Your task to perform on an android device: Toggle the flashlight Image 0: 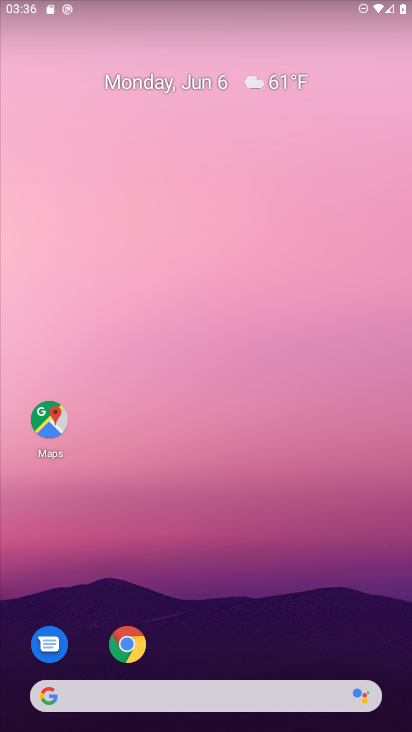
Step 0: drag from (218, 673) to (340, 51)
Your task to perform on an android device: Toggle the flashlight Image 1: 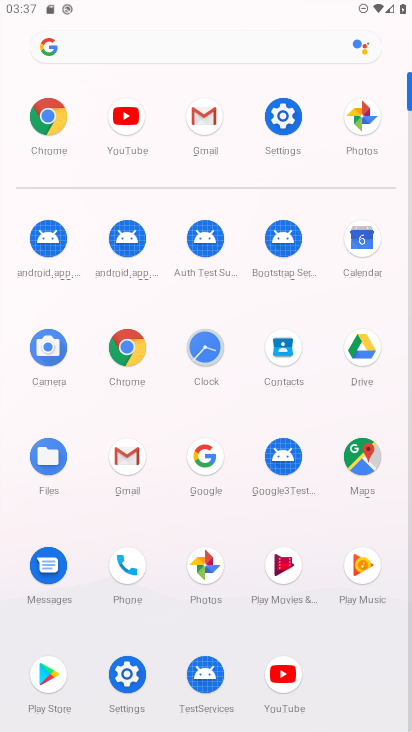
Step 1: click (130, 674)
Your task to perform on an android device: Toggle the flashlight Image 2: 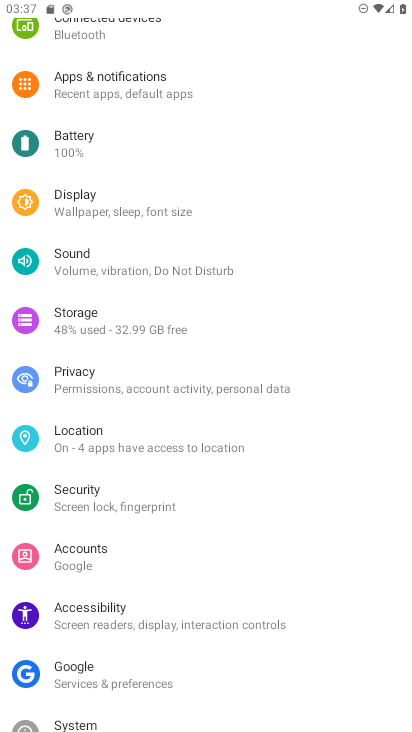
Step 2: drag from (175, 37) to (187, 625)
Your task to perform on an android device: Toggle the flashlight Image 3: 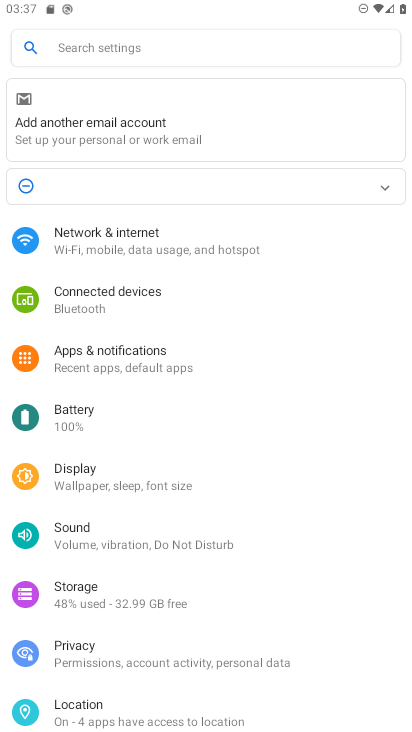
Step 3: click (171, 48)
Your task to perform on an android device: Toggle the flashlight Image 4: 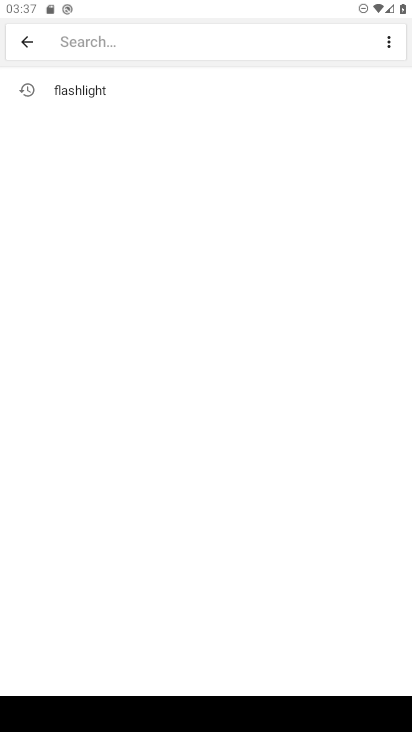
Step 4: type "flashlight"
Your task to perform on an android device: Toggle the flashlight Image 5: 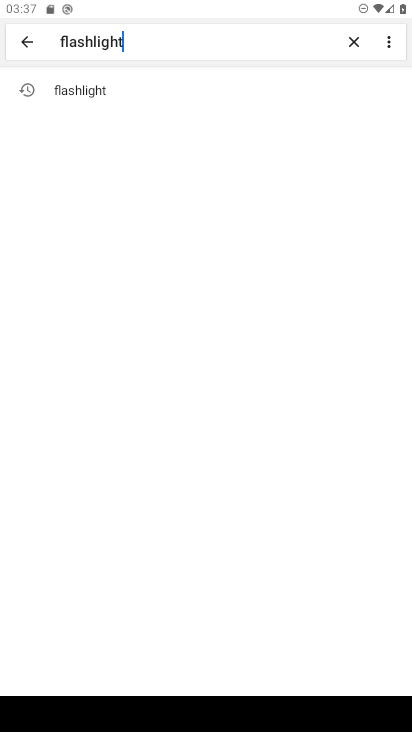
Step 5: click (98, 86)
Your task to perform on an android device: Toggle the flashlight Image 6: 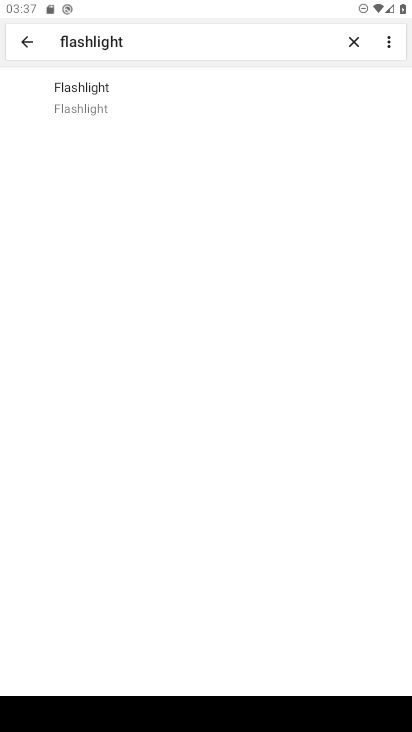
Step 6: click (103, 85)
Your task to perform on an android device: Toggle the flashlight Image 7: 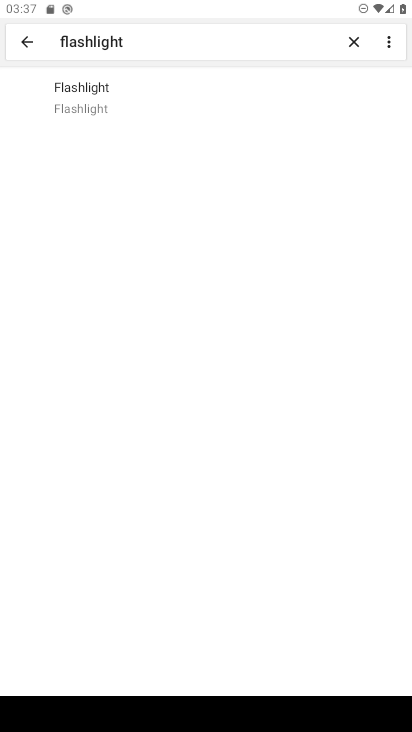
Step 7: click (116, 106)
Your task to perform on an android device: Toggle the flashlight Image 8: 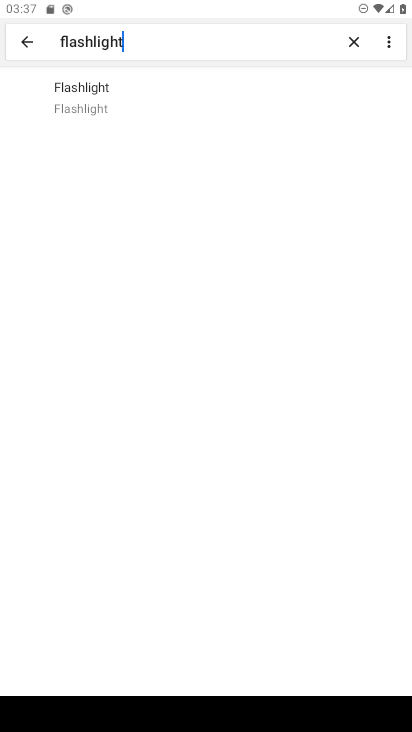
Step 8: click (118, 104)
Your task to perform on an android device: Toggle the flashlight Image 9: 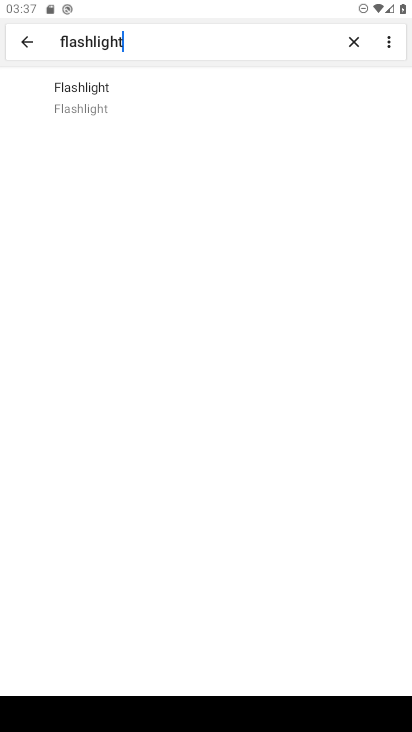
Step 9: task complete